Your task to perform on an android device: Search for Italian restaurants on Maps Image 0: 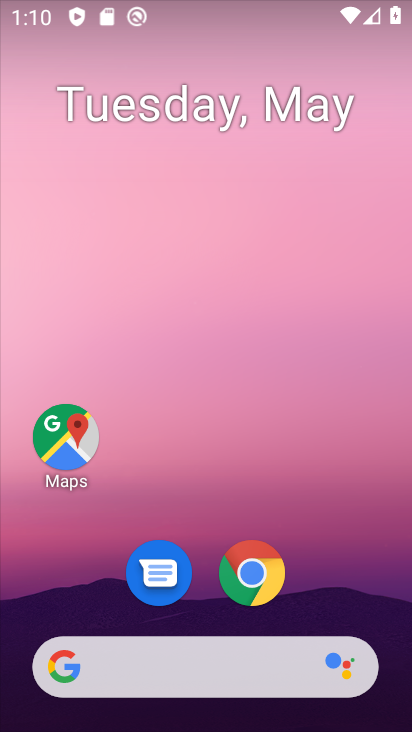
Step 0: click (314, 98)
Your task to perform on an android device: Search for Italian restaurants on Maps Image 1: 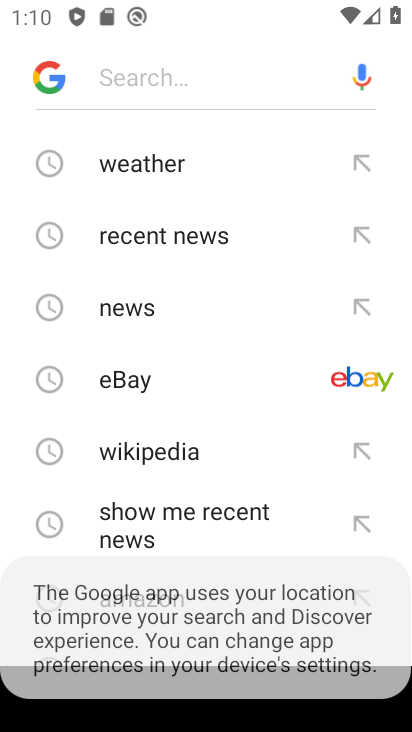
Step 1: press home button
Your task to perform on an android device: Search for Italian restaurants on Maps Image 2: 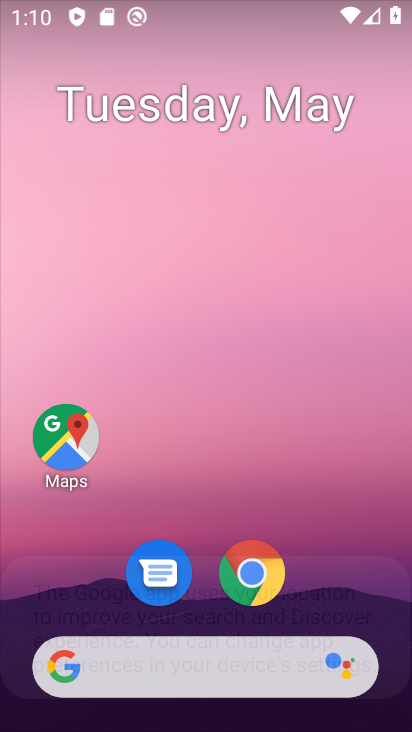
Step 2: drag from (347, 549) to (318, 83)
Your task to perform on an android device: Search for Italian restaurants on Maps Image 3: 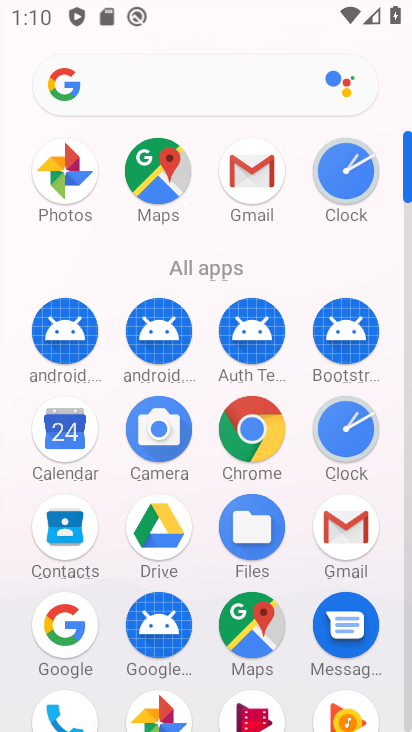
Step 3: click (236, 638)
Your task to perform on an android device: Search for Italian restaurants on Maps Image 4: 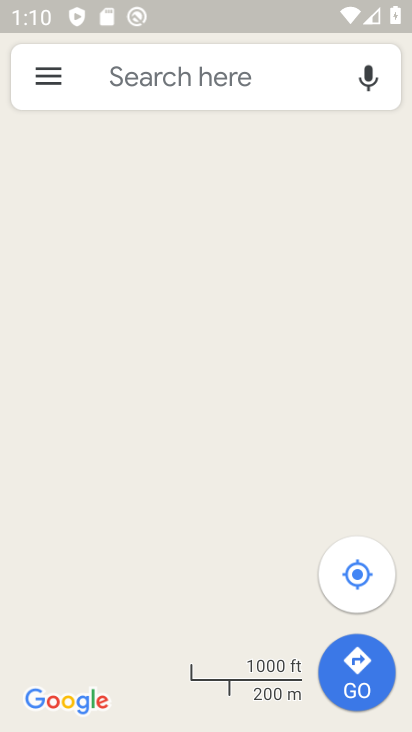
Step 4: click (237, 81)
Your task to perform on an android device: Search for Italian restaurants on Maps Image 5: 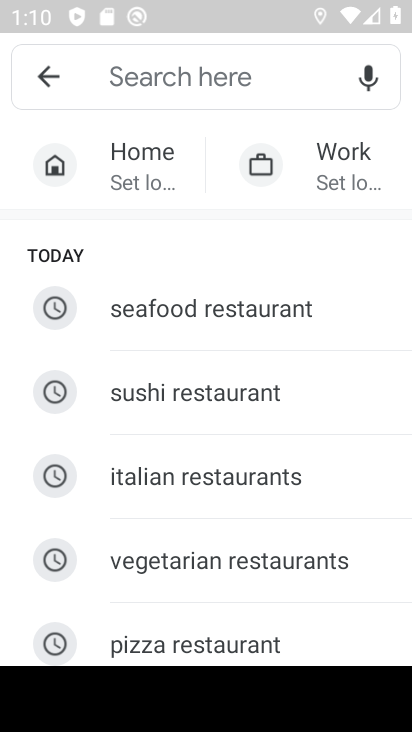
Step 5: type "italian restaurants"
Your task to perform on an android device: Search for Italian restaurants on Maps Image 6: 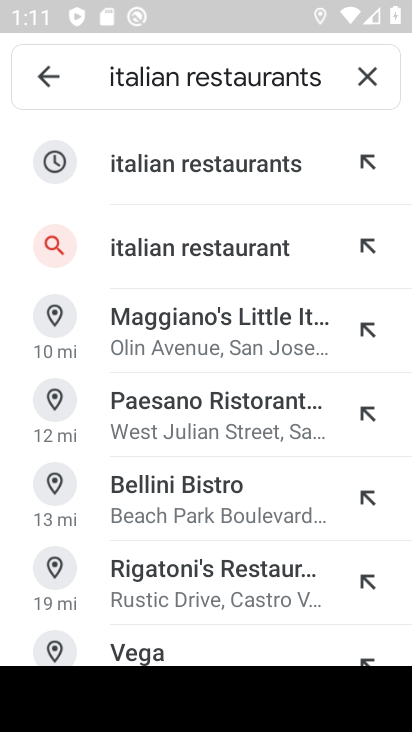
Step 6: click (237, 156)
Your task to perform on an android device: Search for Italian restaurants on Maps Image 7: 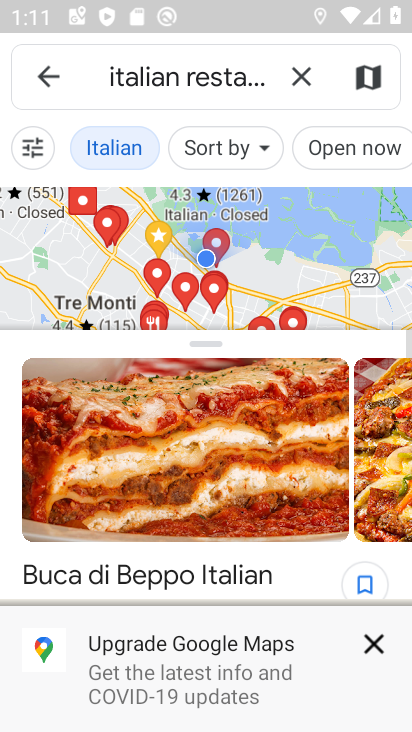
Step 7: click (371, 645)
Your task to perform on an android device: Search for Italian restaurants on Maps Image 8: 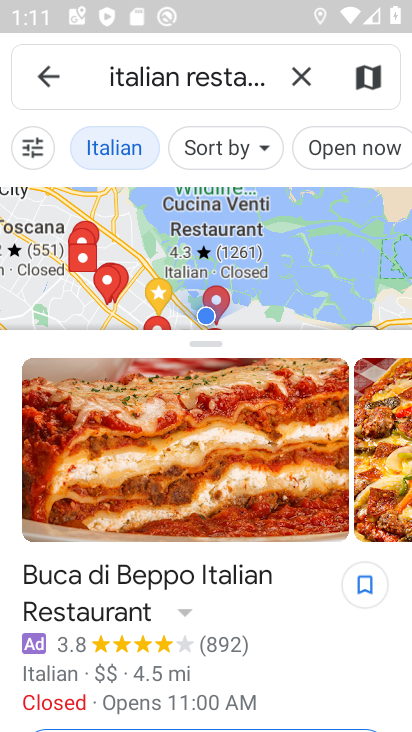
Step 8: task complete